Your task to perform on an android device: Open Android settings Image 0: 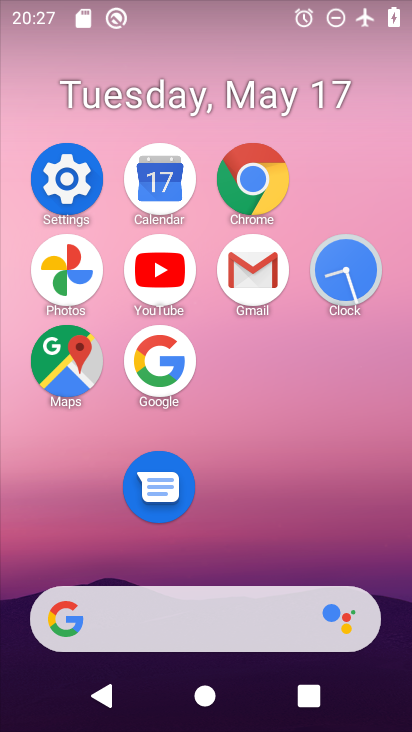
Step 0: click (86, 187)
Your task to perform on an android device: Open Android settings Image 1: 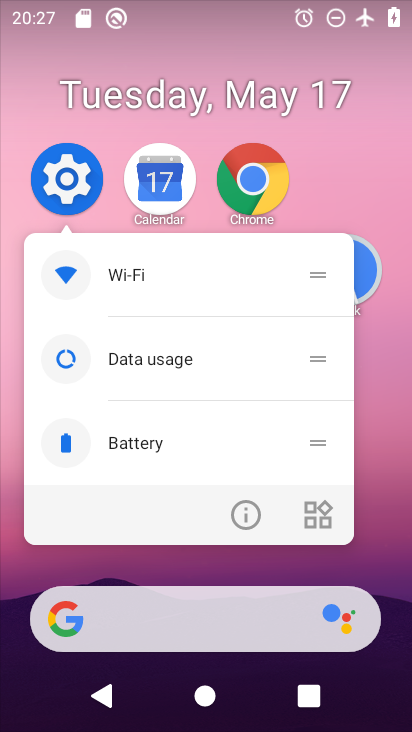
Step 1: click (70, 172)
Your task to perform on an android device: Open Android settings Image 2: 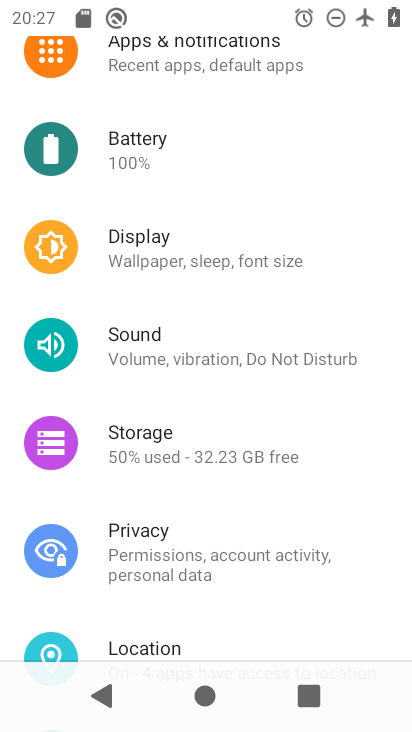
Step 2: task complete